Your task to perform on an android device: Open wifi settings Image 0: 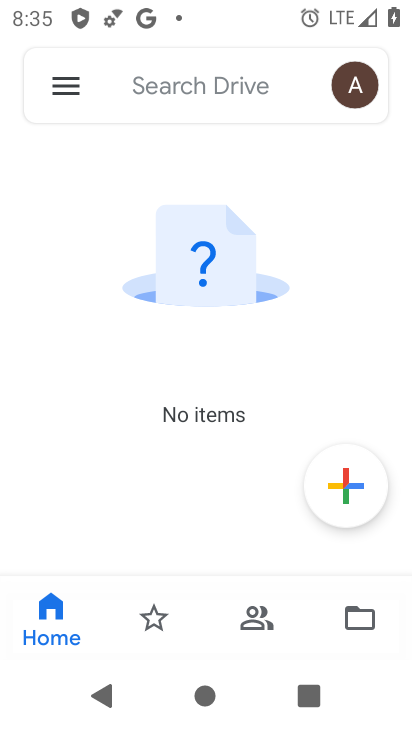
Step 0: press home button
Your task to perform on an android device: Open wifi settings Image 1: 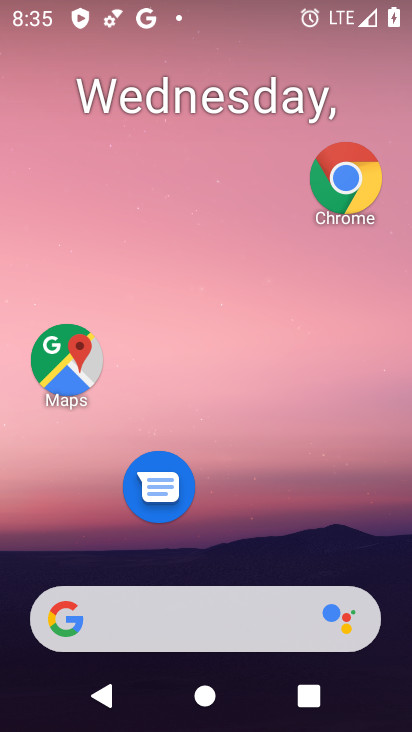
Step 1: drag from (244, 507) to (244, 168)
Your task to perform on an android device: Open wifi settings Image 2: 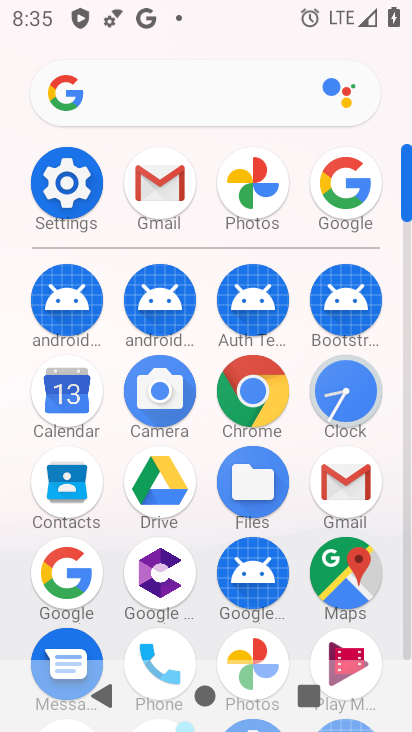
Step 2: drag from (256, 514) to (256, 361)
Your task to perform on an android device: Open wifi settings Image 3: 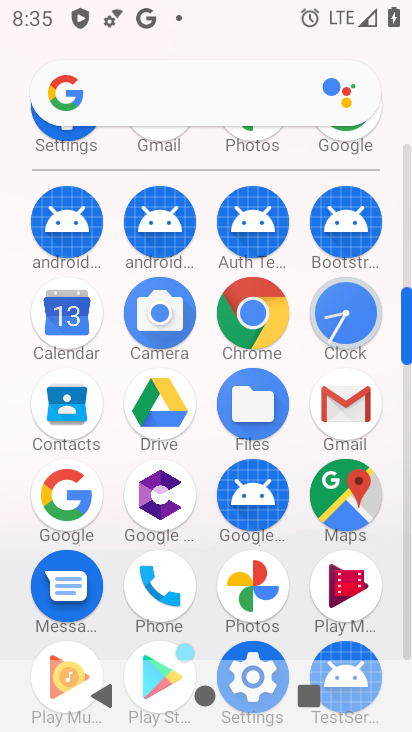
Step 3: drag from (270, 531) to (286, 247)
Your task to perform on an android device: Open wifi settings Image 4: 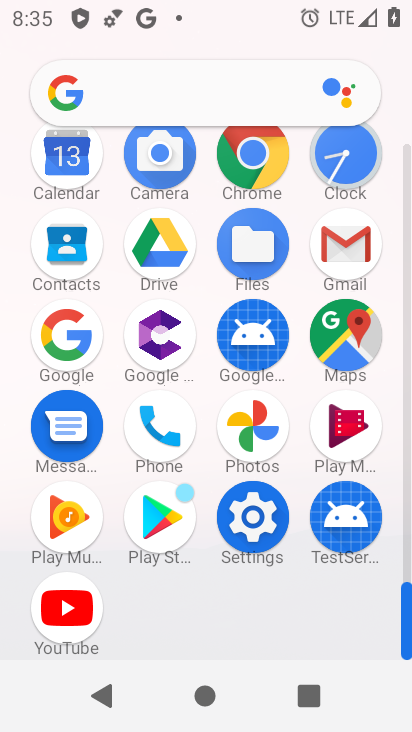
Step 4: click (267, 536)
Your task to perform on an android device: Open wifi settings Image 5: 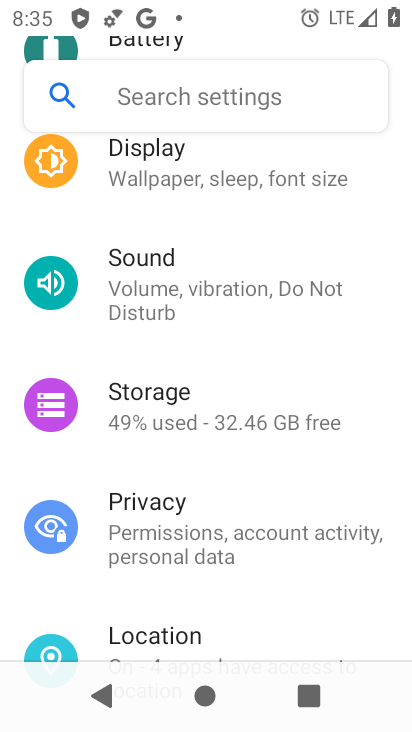
Step 5: drag from (226, 314) to (134, 693)
Your task to perform on an android device: Open wifi settings Image 6: 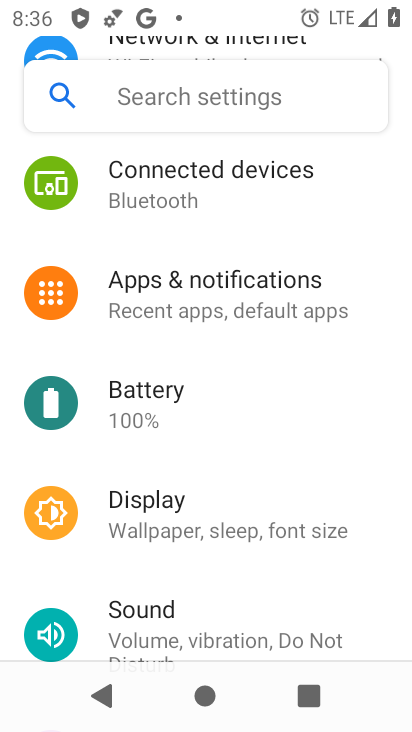
Step 6: drag from (163, 315) to (116, 693)
Your task to perform on an android device: Open wifi settings Image 7: 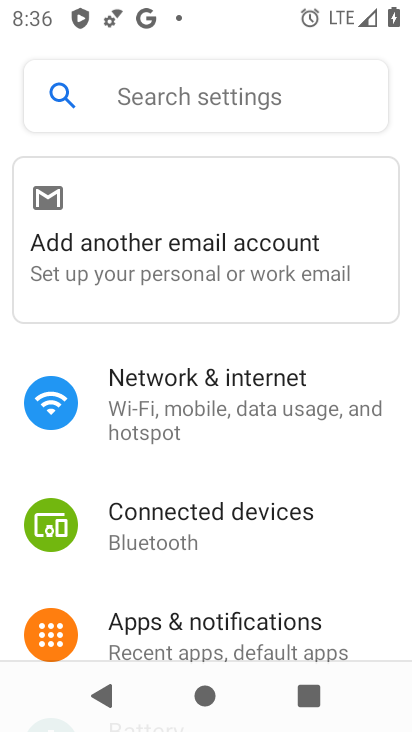
Step 7: click (201, 393)
Your task to perform on an android device: Open wifi settings Image 8: 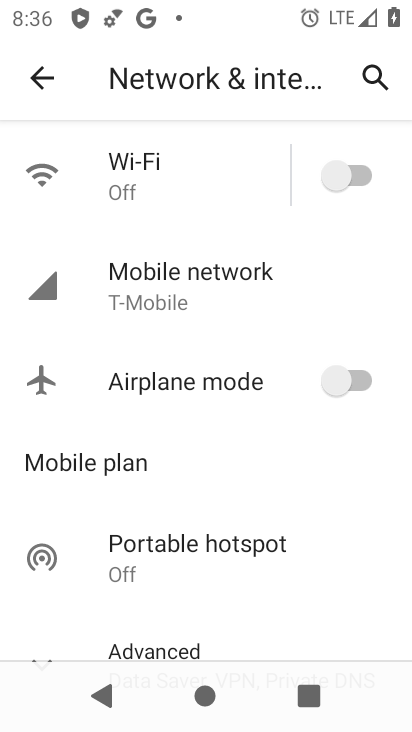
Step 8: click (218, 189)
Your task to perform on an android device: Open wifi settings Image 9: 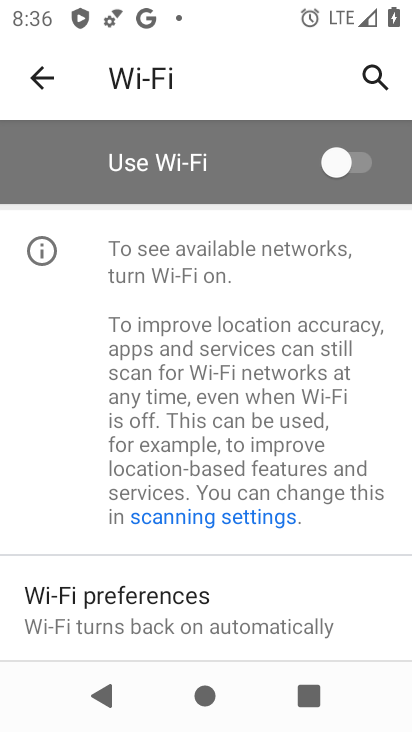
Step 9: task complete